Your task to perform on an android device: View the shopping cart on target.com. Search for "logitech g pro" on target.com, select the first entry, and add it to the cart. Image 0: 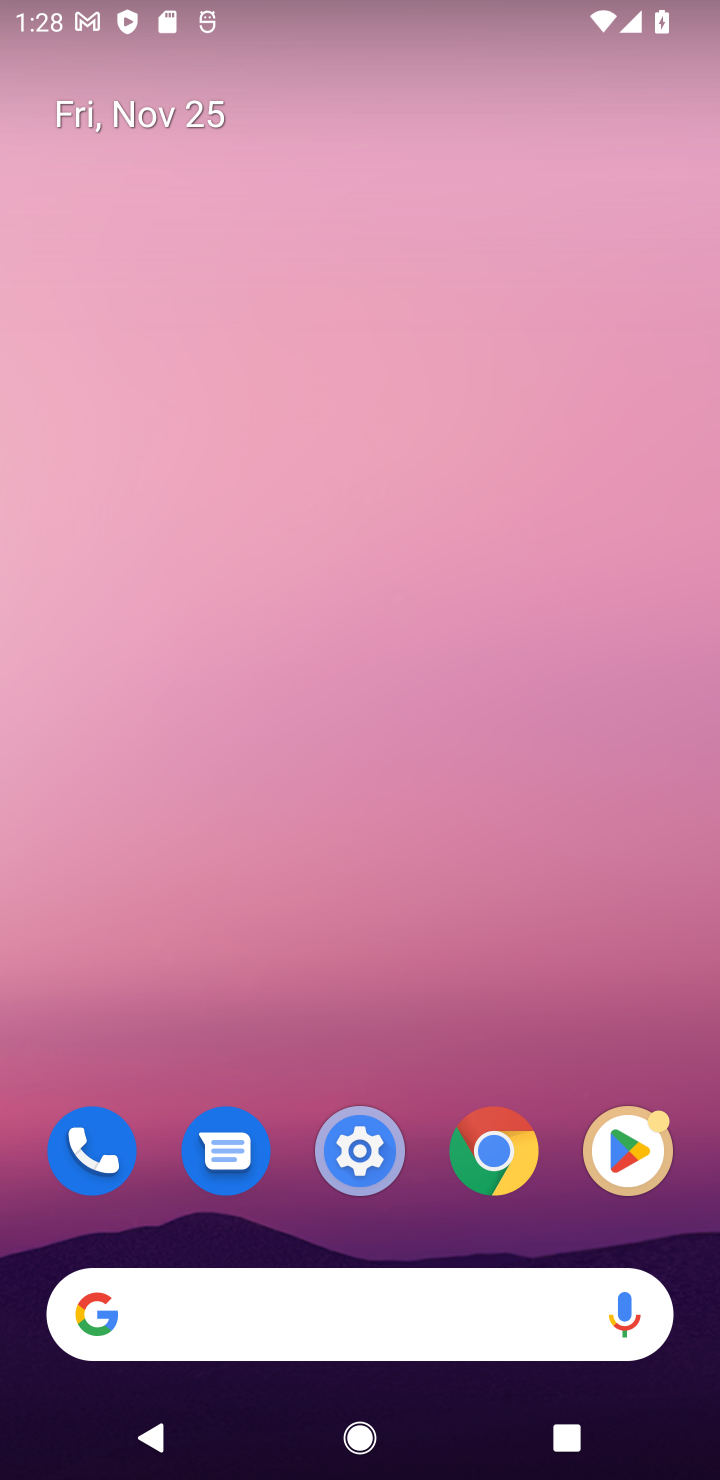
Step 0: click (502, 1339)
Your task to perform on an android device: View the shopping cart on target.com. Search for "logitech g pro" on target.com, select the first entry, and add it to the cart. Image 1: 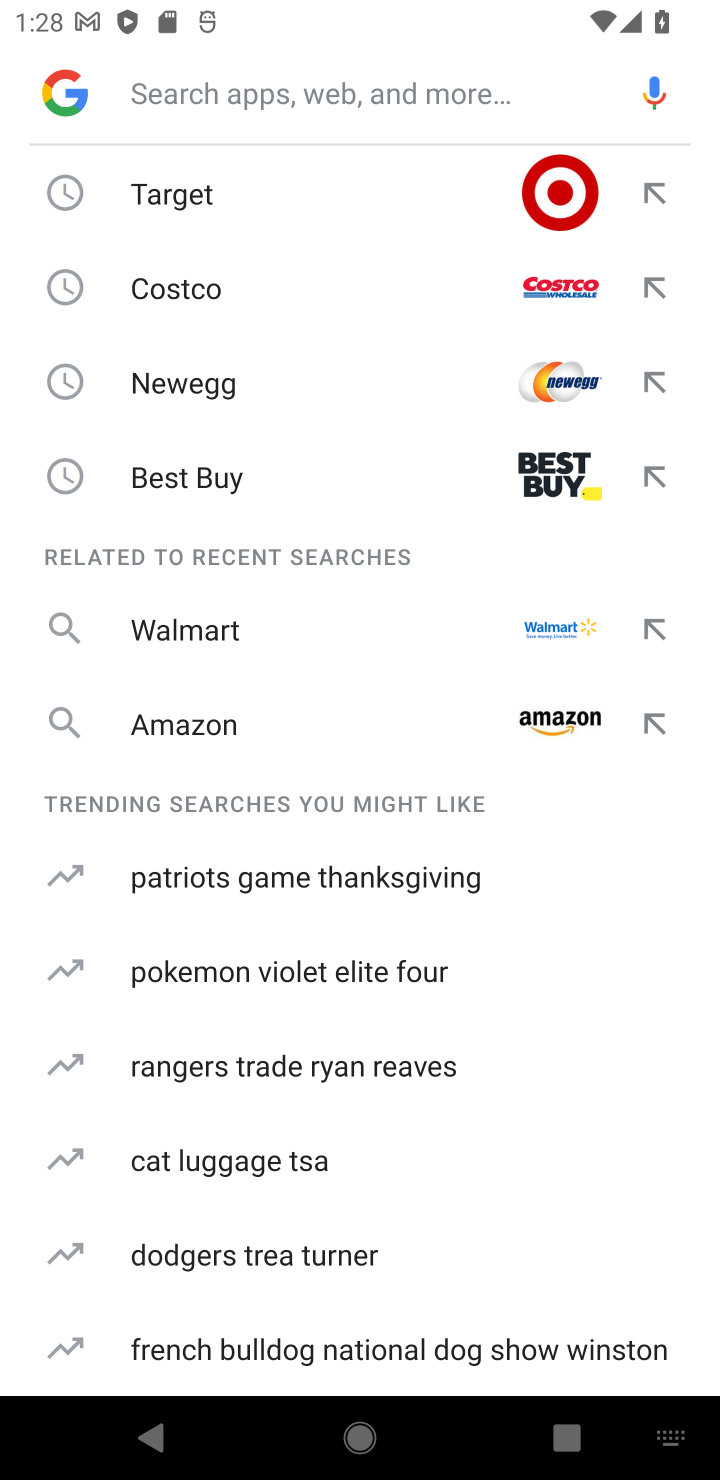
Step 1: click (273, 191)
Your task to perform on an android device: View the shopping cart on target.com. Search for "logitech g pro" on target.com, select the first entry, and add it to the cart. Image 2: 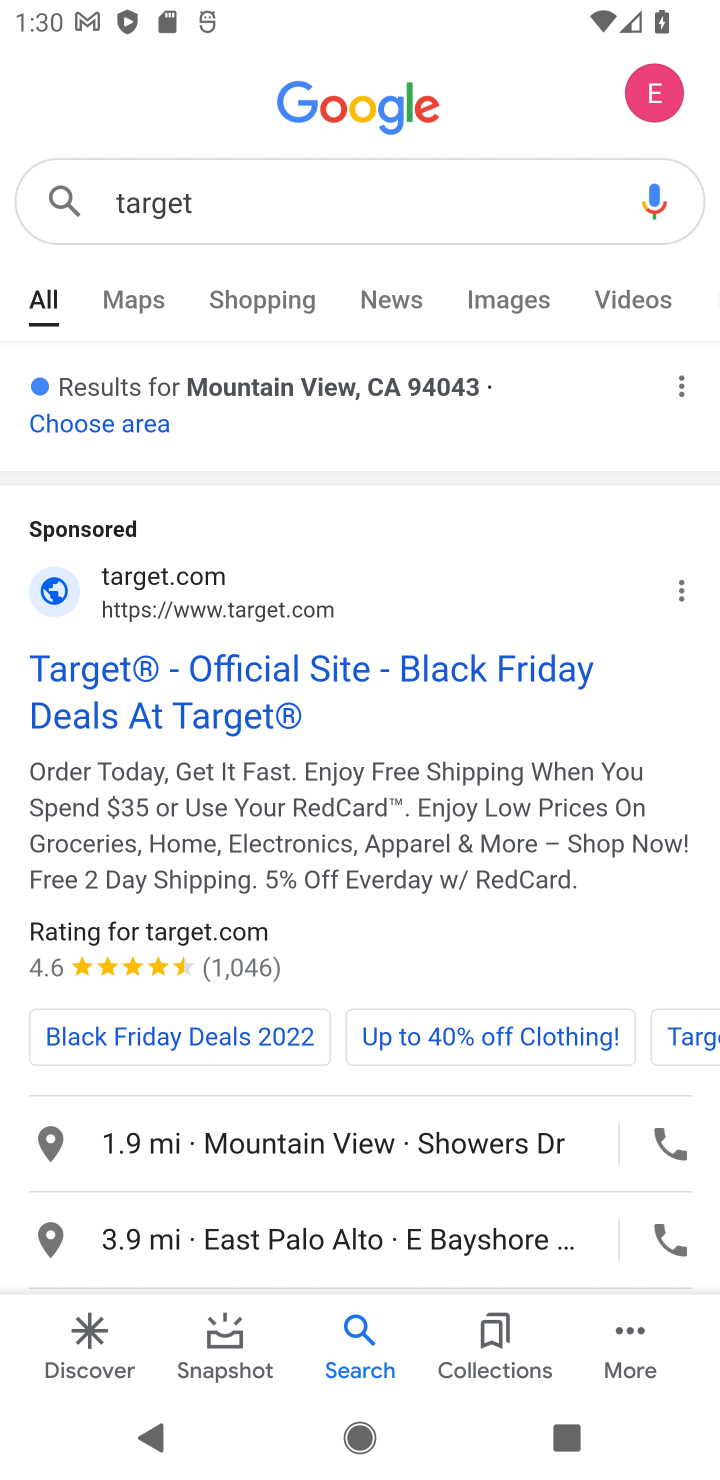
Step 2: click (321, 728)
Your task to perform on an android device: View the shopping cart on target.com. Search for "logitech g pro" on target.com, select the first entry, and add it to the cart. Image 3: 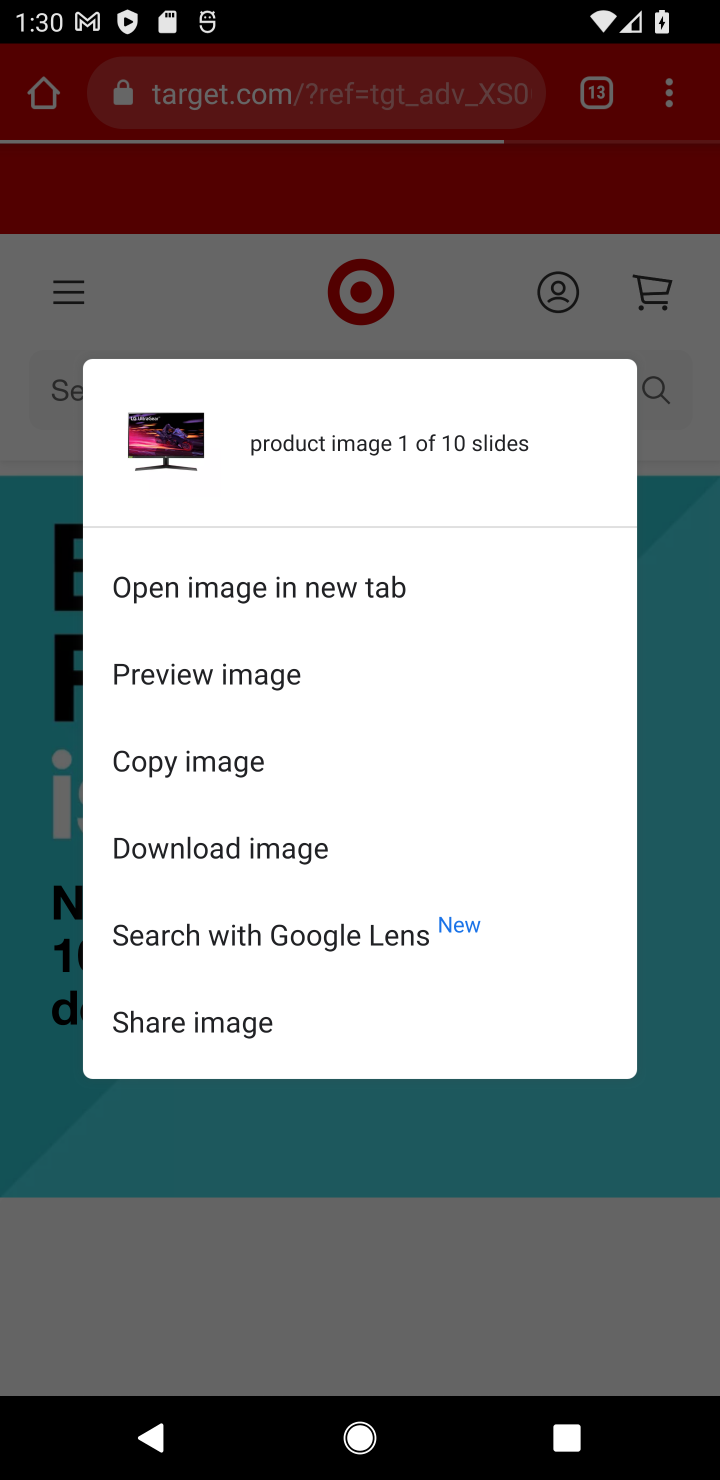
Step 3: click (622, 1143)
Your task to perform on an android device: View the shopping cart on target.com. Search for "logitech g pro" on target.com, select the first entry, and add it to the cart. Image 4: 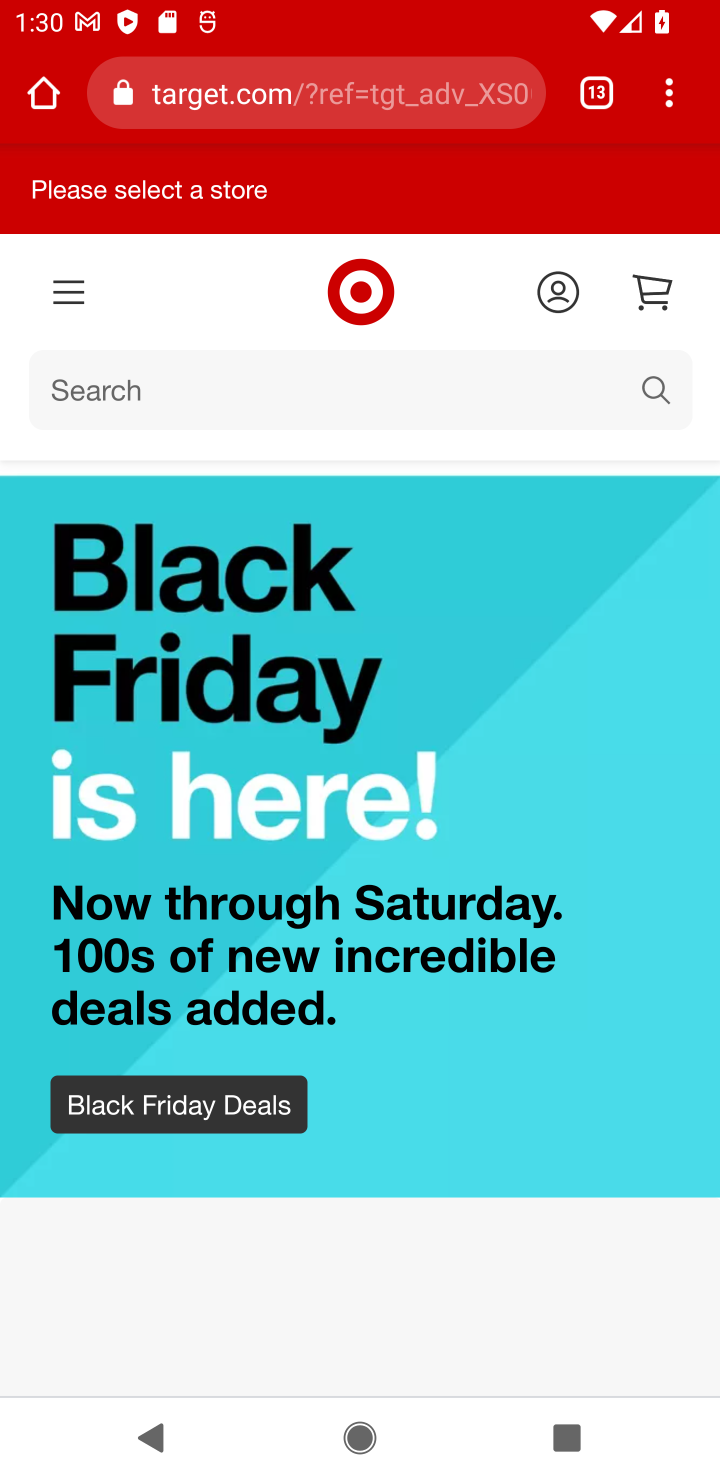
Step 4: click (317, 380)
Your task to perform on an android device: View the shopping cart on target.com. Search for "logitech g pro" on target.com, select the first entry, and add it to the cart. Image 5: 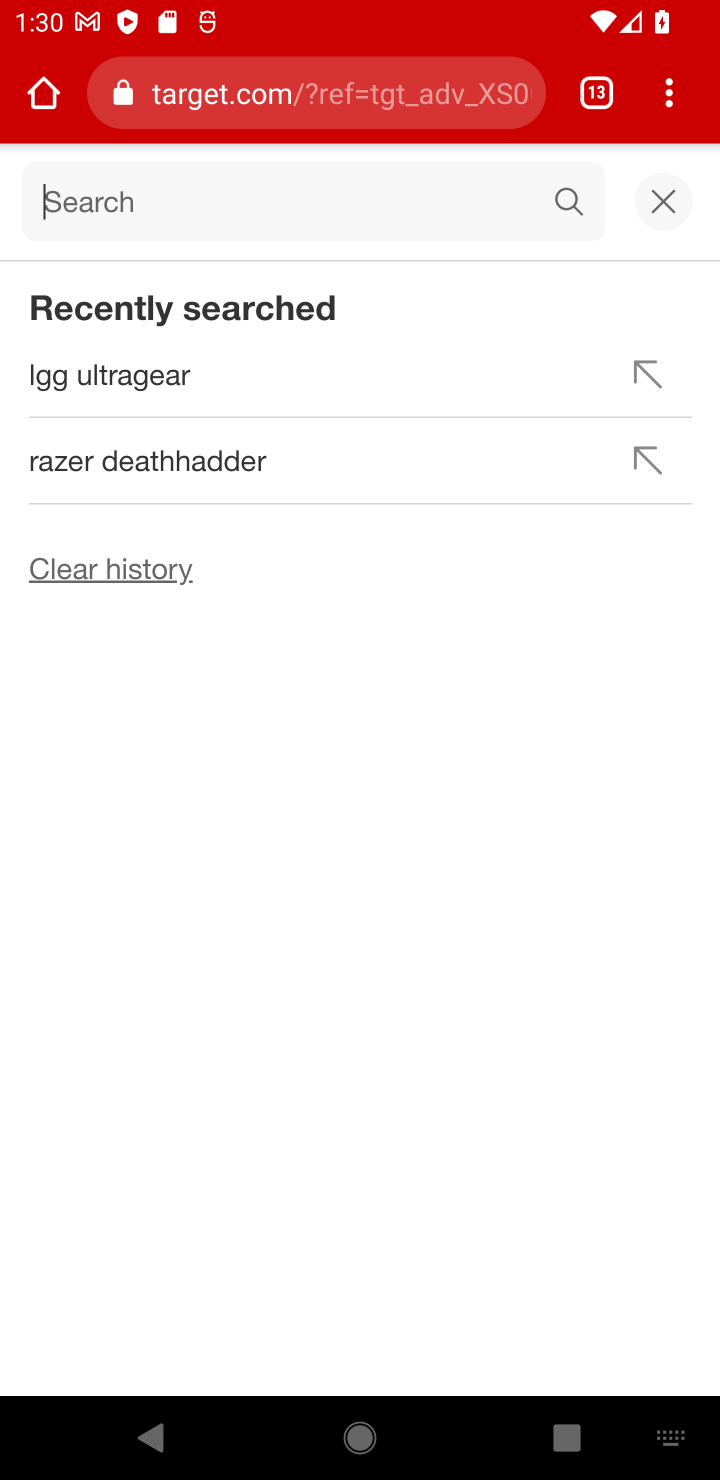
Step 5: type "logitech"
Your task to perform on an android device: View the shopping cart on target.com. Search for "logitech g pro" on target.com, select the first entry, and add it to the cart. Image 6: 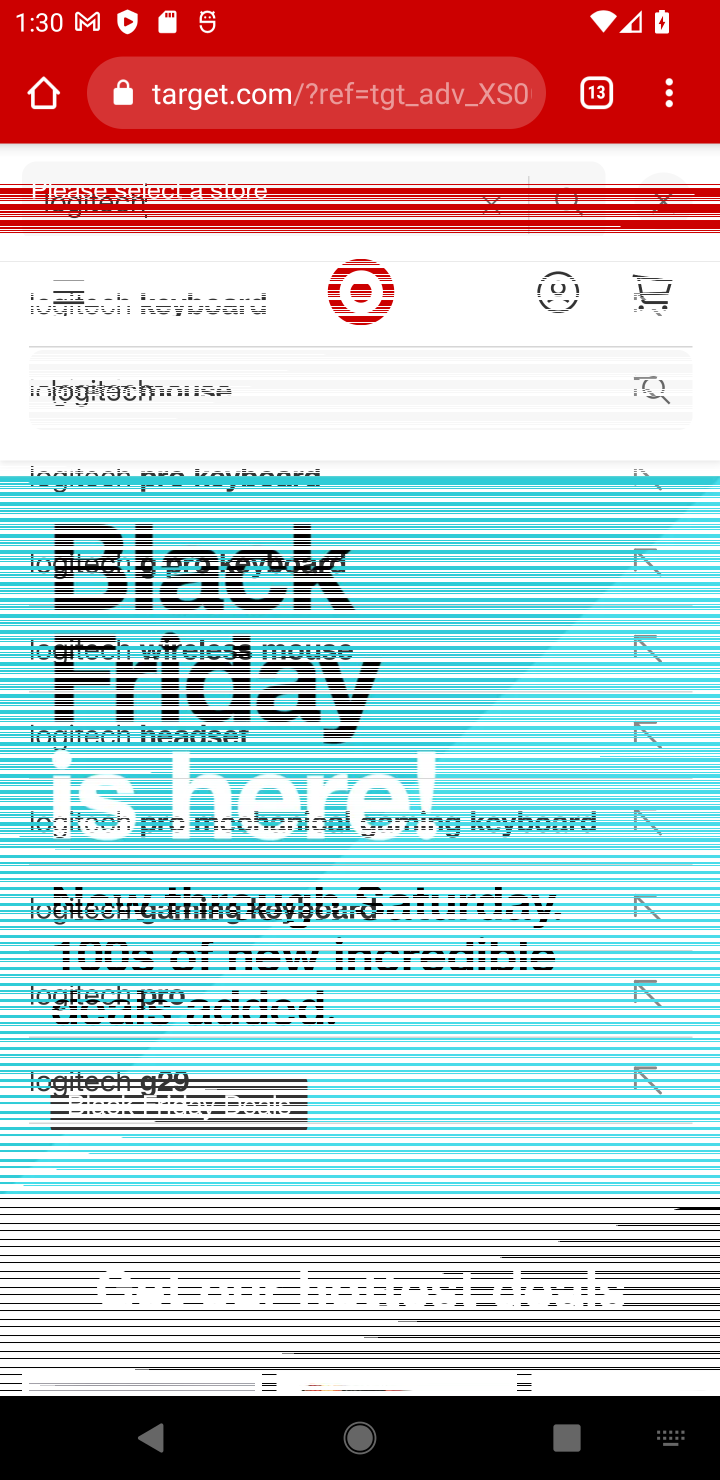
Step 6: click (188, 323)
Your task to perform on an android device: View the shopping cart on target.com. Search for "logitech g pro" on target.com, select the first entry, and add it to the cart. Image 7: 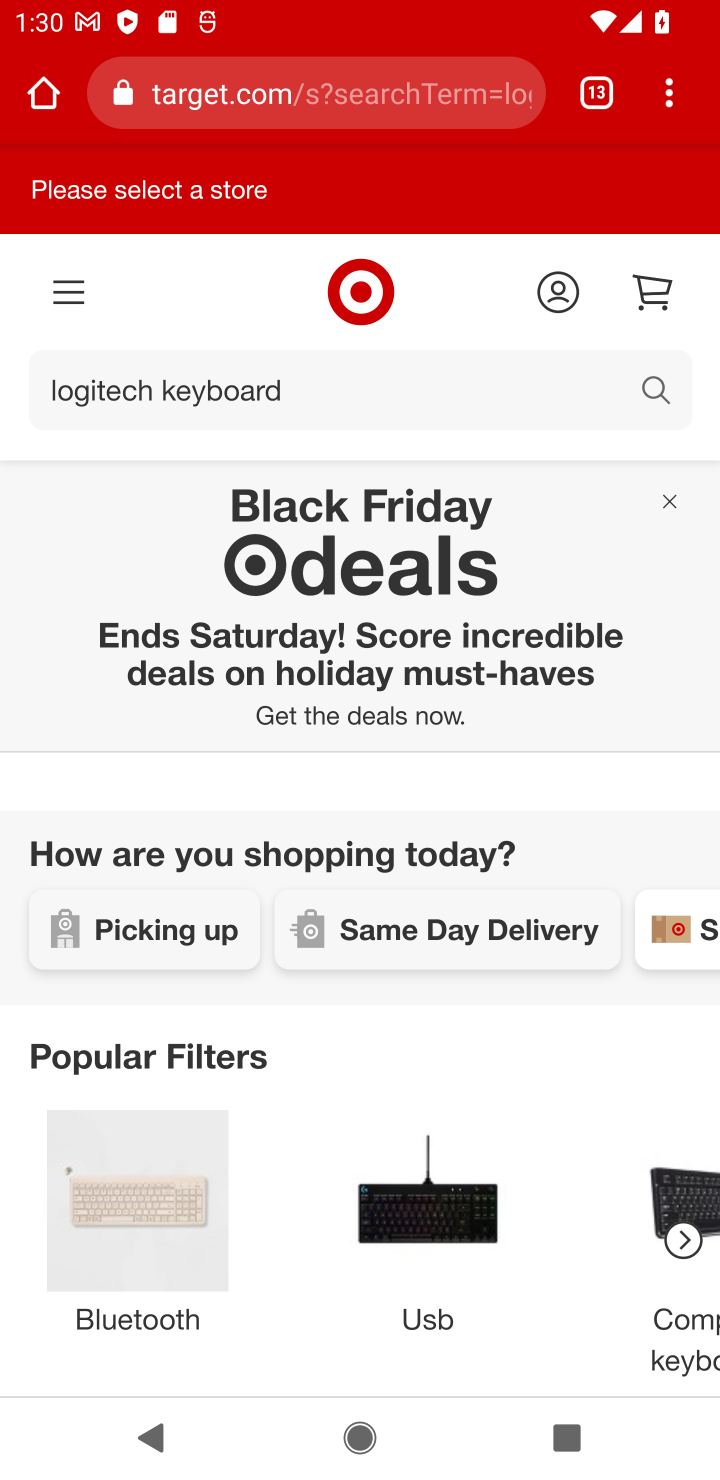
Step 7: task complete